Your task to perform on an android device: Open calendar and show me the third week of next month Image 0: 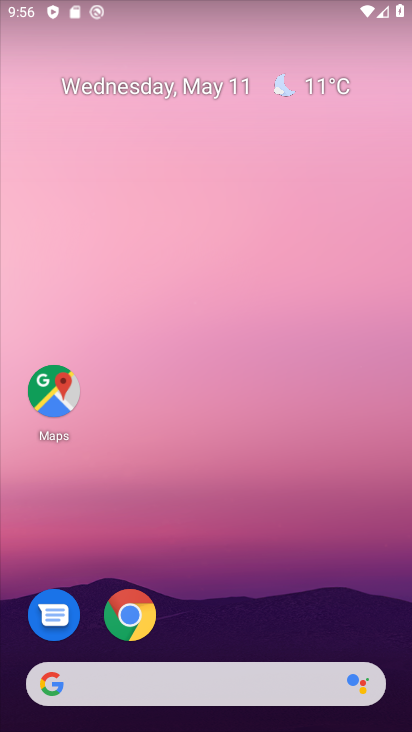
Step 0: drag from (274, 569) to (312, 86)
Your task to perform on an android device: Open calendar and show me the third week of next month Image 1: 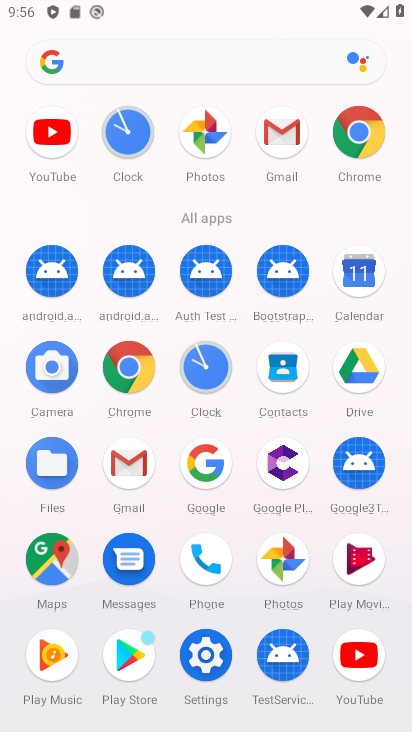
Step 1: click (357, 252)
Your task to perform on an android device: Open calendar and show me the third week of next month Image 2: 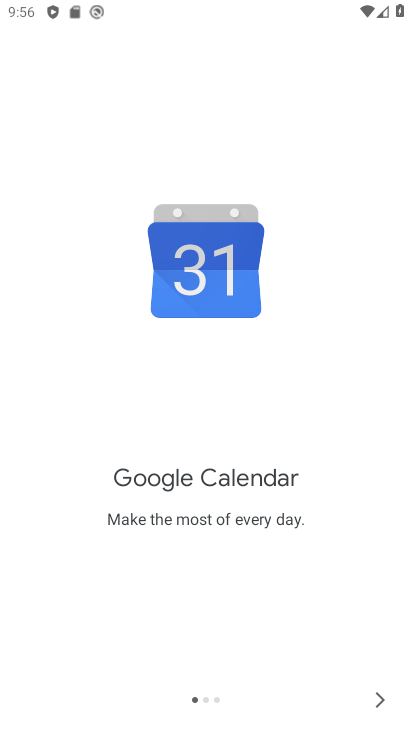
Step 2: click (388, 695)
Your task to perform on an android device: Open calendar and show me the third week of next month Image 3: 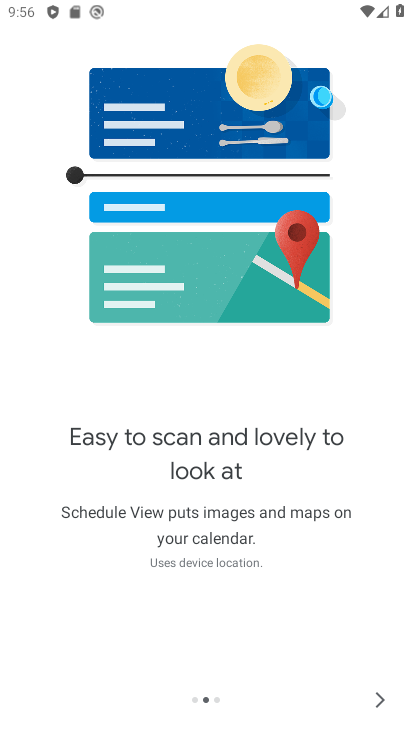
Step 3: click (382, 695)
Your task to perform on an android device: Open calendar and show me the third week of next month Image 4: 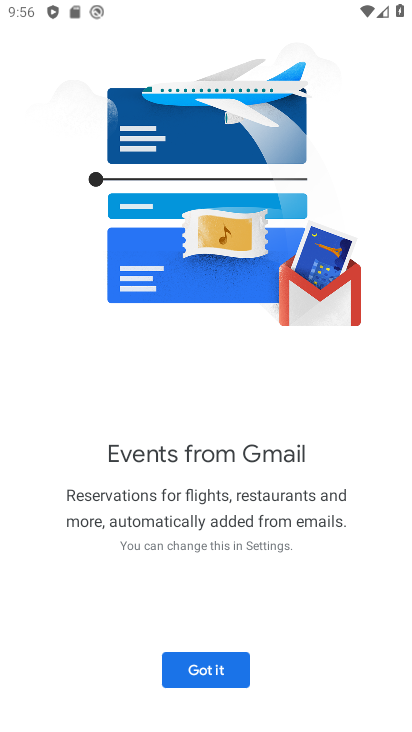
Step 4: click (382, 695)
Your task to perform on an android device: Open calendar and show me the third week of next month Image 5: 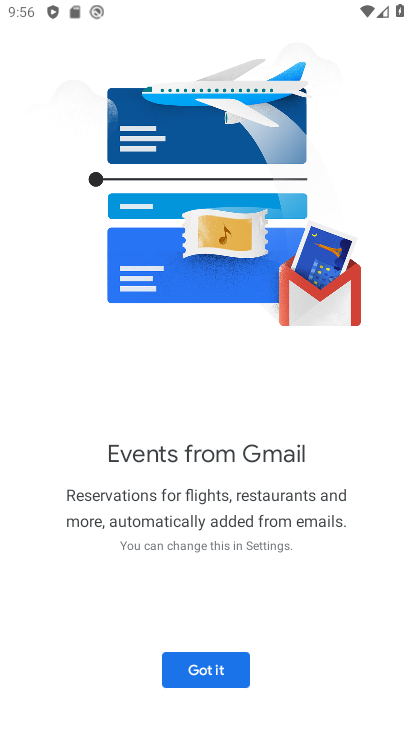
Step 5: click (213, 681)
Your task to perform on an android device: Open calendar and show me the third week of next month Image 6: 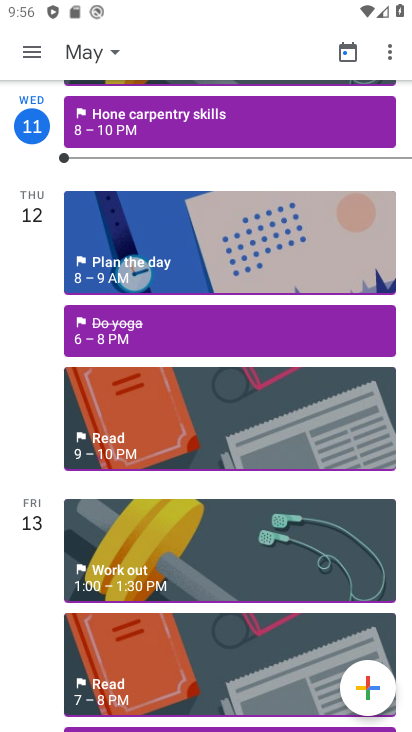
Step 6: click (98, 49)
Your task to perform on an android device: Open calendar and show me the third week of next month Image 7: 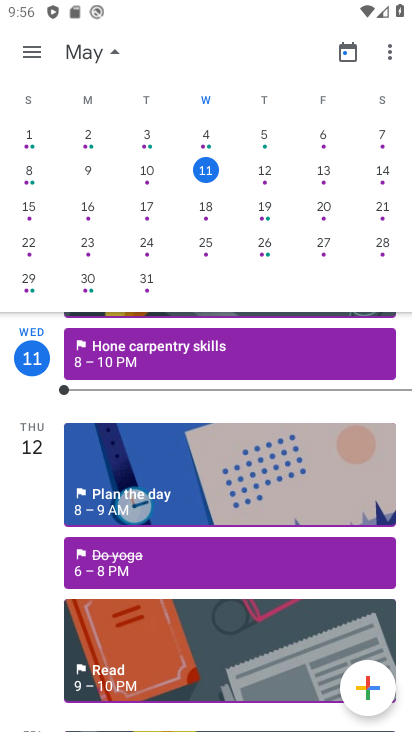
Step 7: drag from (345, 174) to (79, 195)
Your task to perform on an android device: Open calendar and show me the third week of next month Image 8: 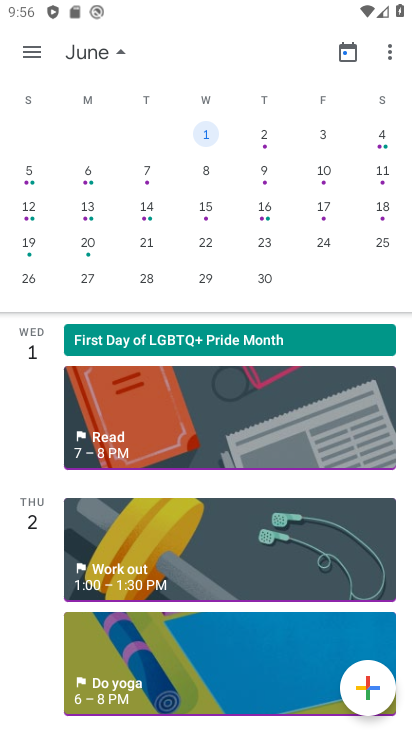
Step 8: click (30, 243)
Your task to perform on an android device: Open calendar and show me the third week of next month Image 9: 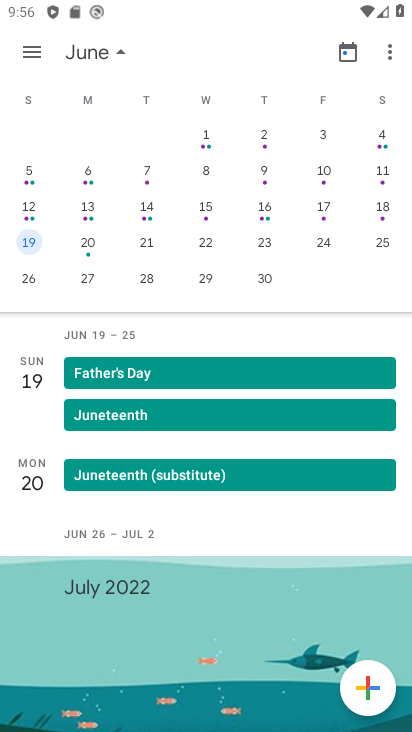
Step 9: task complete